Your task to perform on an android device: Show me the alarms in the clock app Image 0: 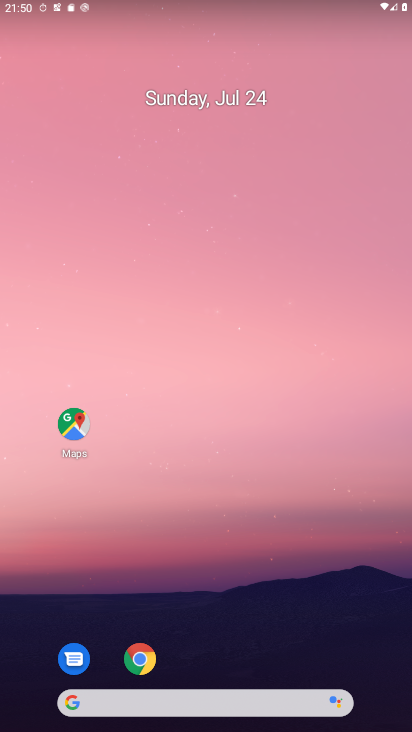
Step 0: drag from (214, 728) to (219, 88)
Your task to perform on an android device: Show me the alarms in the clock app Image 1: 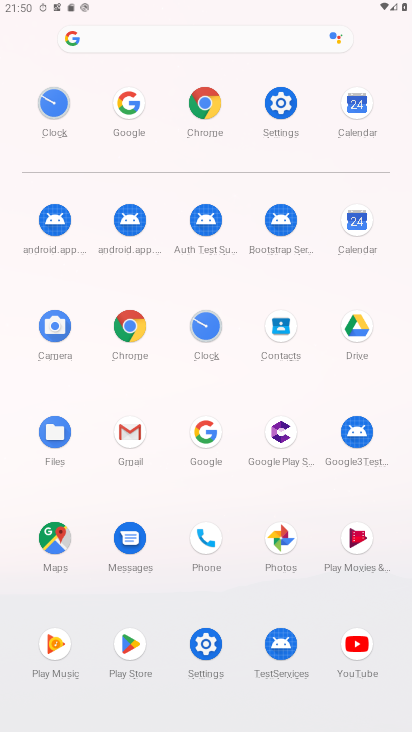
Step 1: click (203, 324)
Your task to perform on an android device: Show me the alarms in the clock app Image 2: 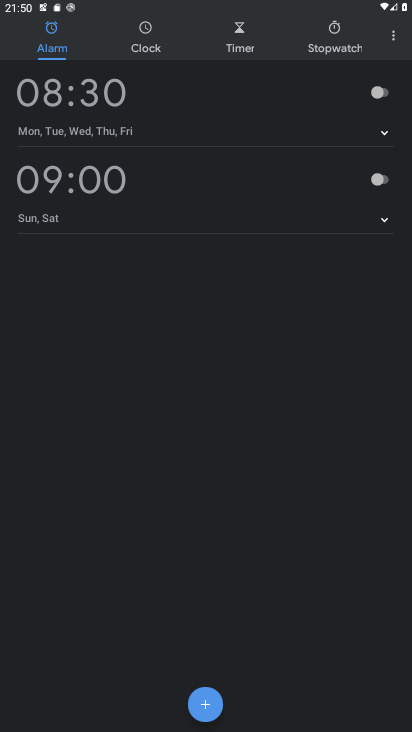
Step 2: task complete